Your task to perform on an android device: Open battery settings Image 0: 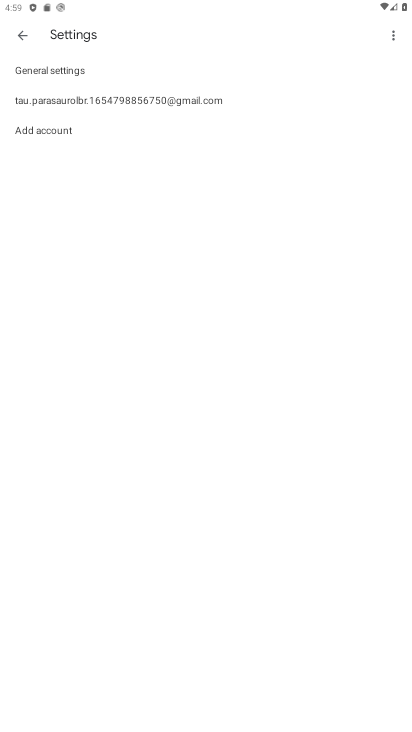
Step 0: press home button
Your task to perform on an android device: Open battery settings Image 1: 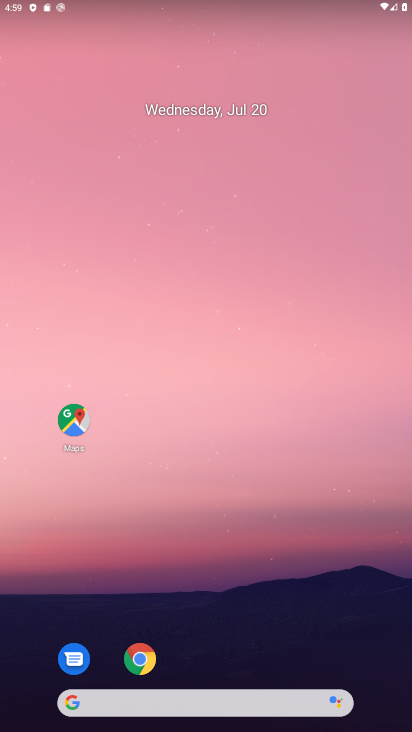
Step 1: drag from (193, 662) to (157, 201)
Your task to perform on an android device: Open battery settings Image 2: 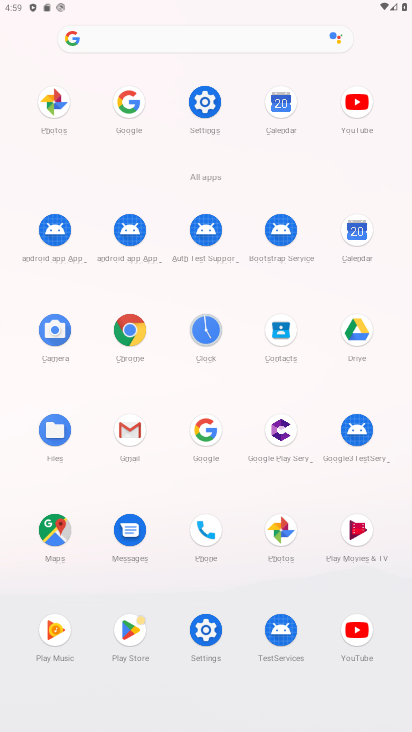
Step 2: click (206, 97)
Your task to perform on an android device: Open battery settings Image 3: 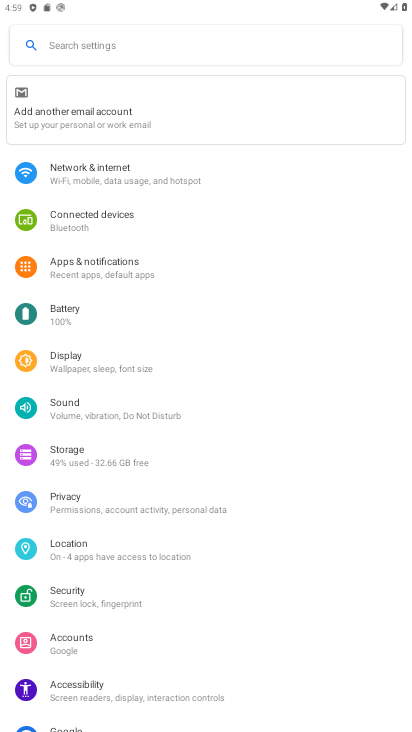
Step 3: click (49, 312)
Your task to perform on an android device: Open battery settings Image 4: 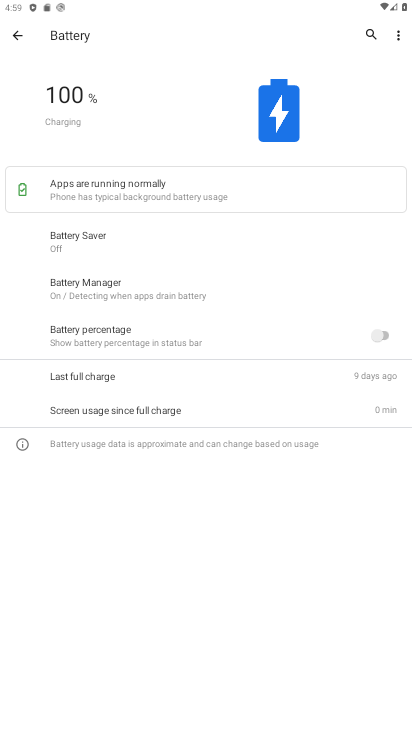
Step 4: task complete